Your task to perform on an android device: Go to internet settings Image 0: 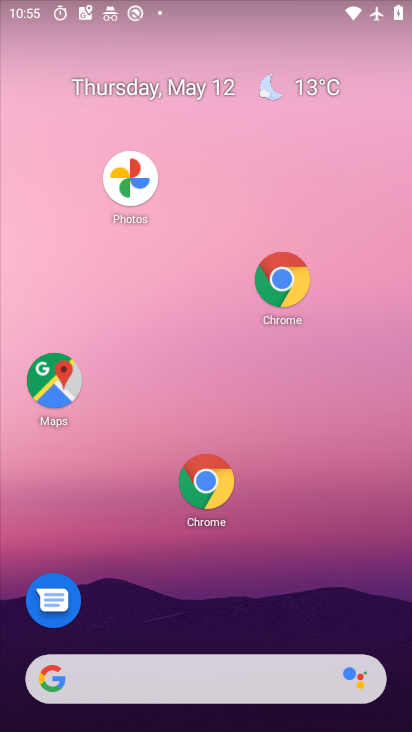
Step 0: drag from (271, 402) to (231, 101)
Your task to perform on an android device: Go to internet settings Image 1: 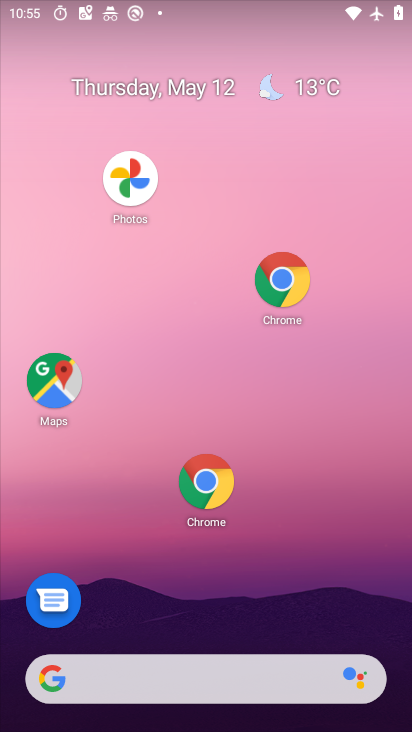
Step 1: drag from (250, 603) to (238, 62)
Your task to perform on an android device: Go to internet settings Image 2: 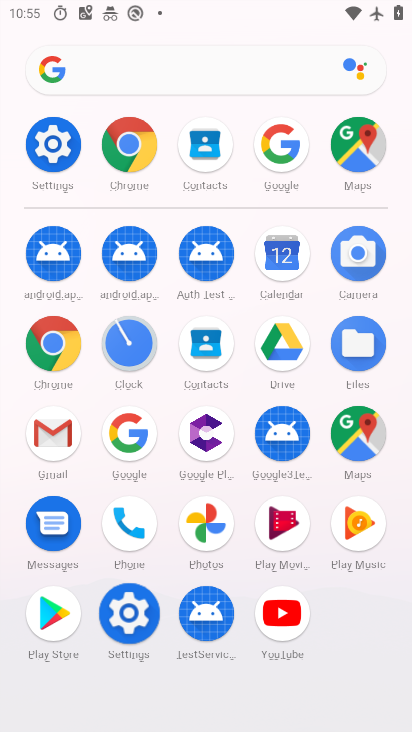
Step 2: click (65, 139)
Your task to perform on an android device: Go to internet settings Image 3: 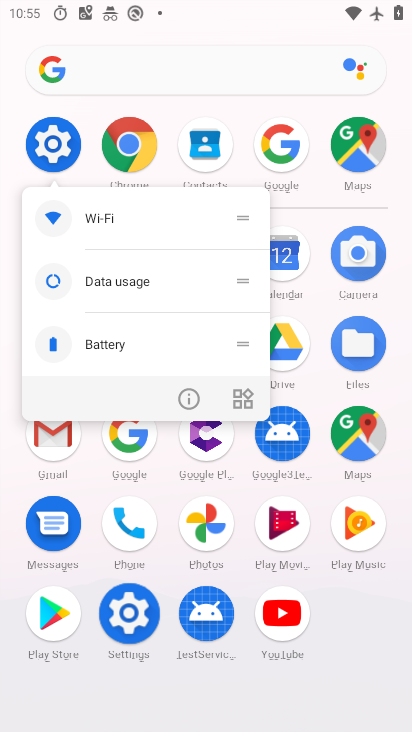
Step 3: click (64, 139)
Your task to perform on an android device: Go to internet settings Image 4: 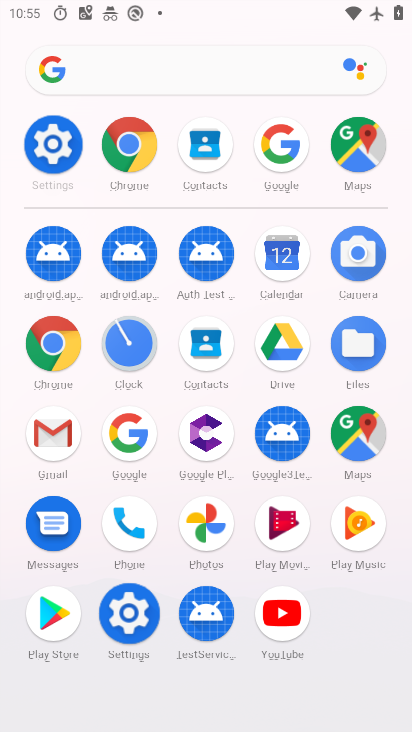
Step 4: click (52, 149)
Your task to perform on an android device: Go to internet settings Image 5: 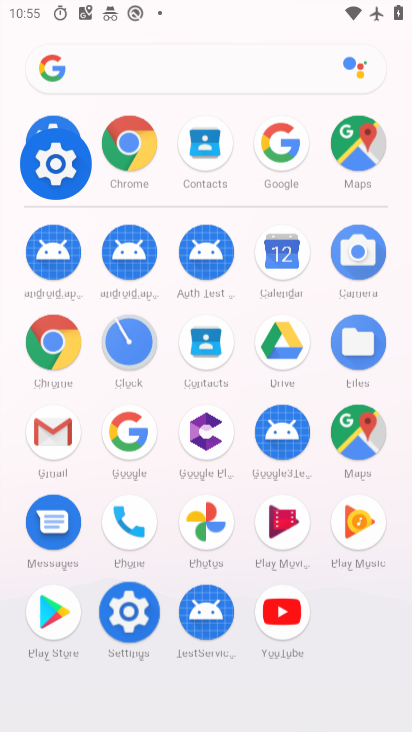
Step 5: click (52, 149)
Your task to perform on an android device: Go to internet settings Image 6: 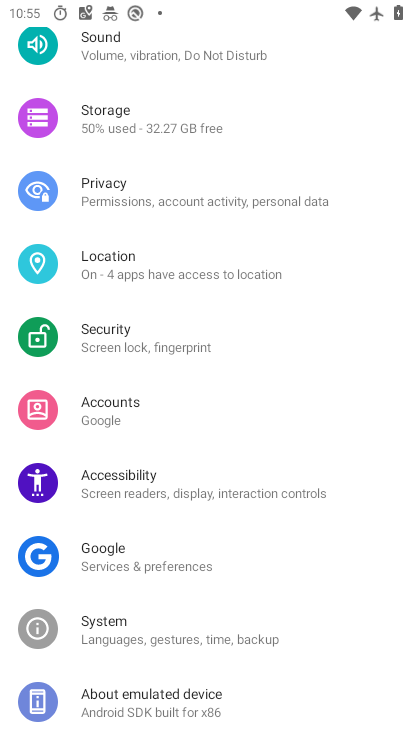
Step 6: click (52, 149)
Your task to perform on an android device: Go to internet settings Image 7: 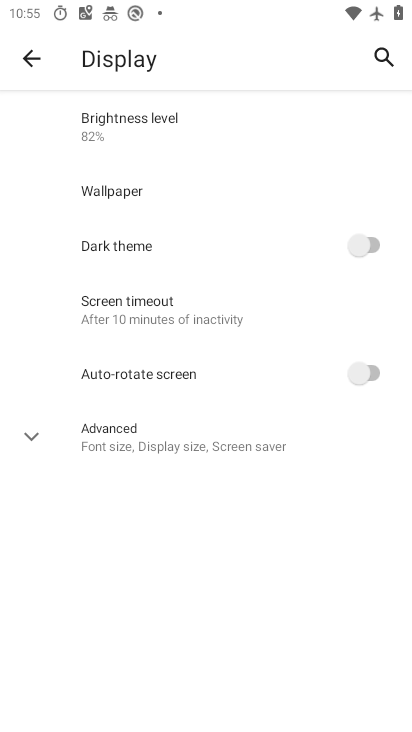
Step 7: click (25, 50)
Your task to perform on an android device: Go to internet settings Image 8: 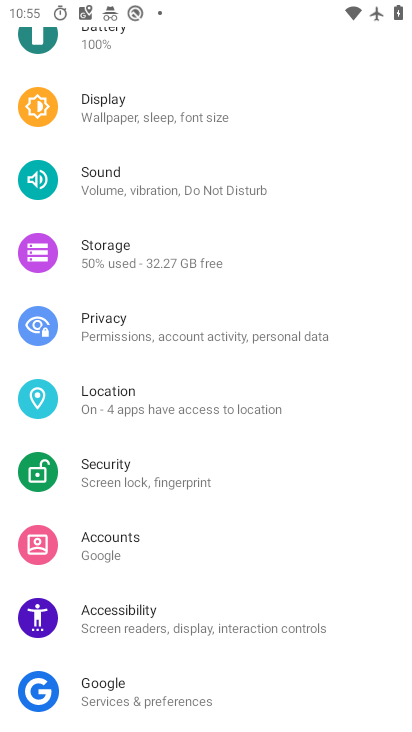
Step 8: drag from (120, 113) to (177, 603)
Your task to perform on an android device: Go to internet settings Image 9: 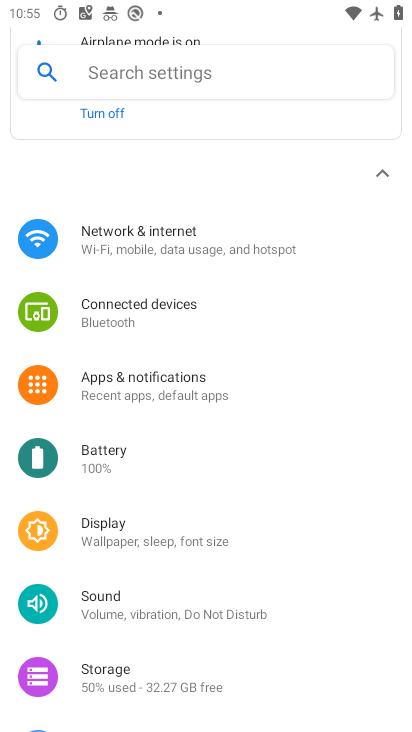
Step 9: click (143, 234)
Your task to perform on an android device: Go to internet settings Image 10: 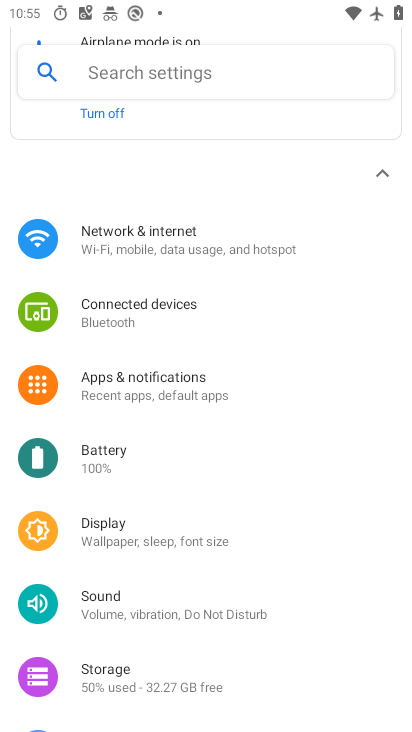
Step 10: click (143, 234)
Your task to perform on an android device: Go to internet settings Image 11: 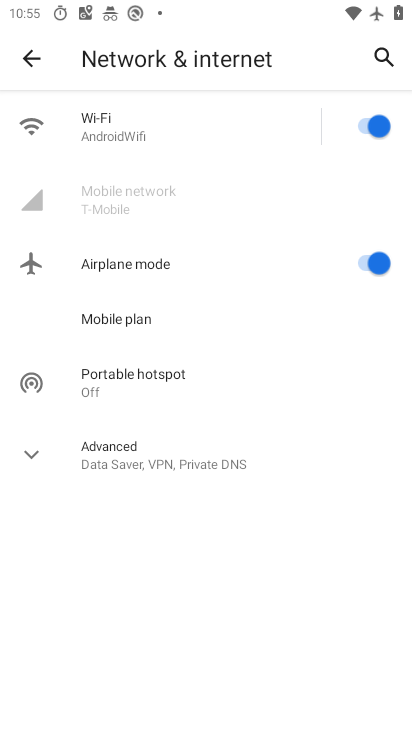
Step 11: task complete